Your task to perform on an android device: Show me the alarms in the clock app Image 0: 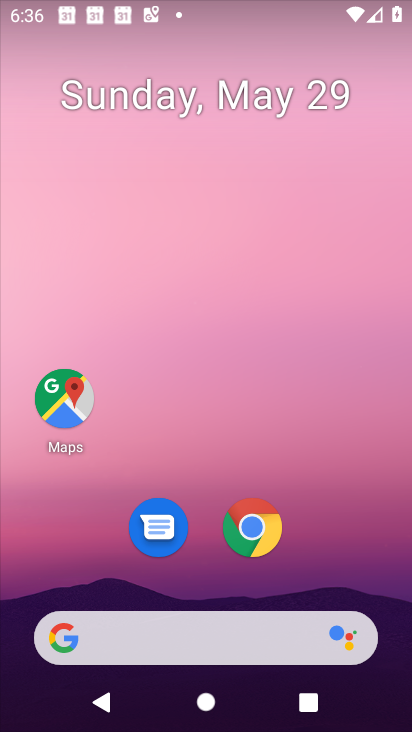
Step 0: drag from (373, 638) to (276, 98)
Your task to perform on an android device: Show me the alarms in the clock app Image 1: 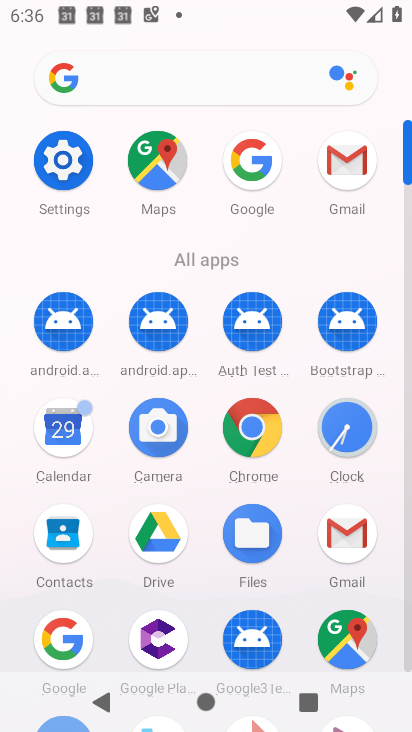
Step 1: click (353, 426)
Your task to perform on an android device: Show me the alarms in the clock app Image 2: 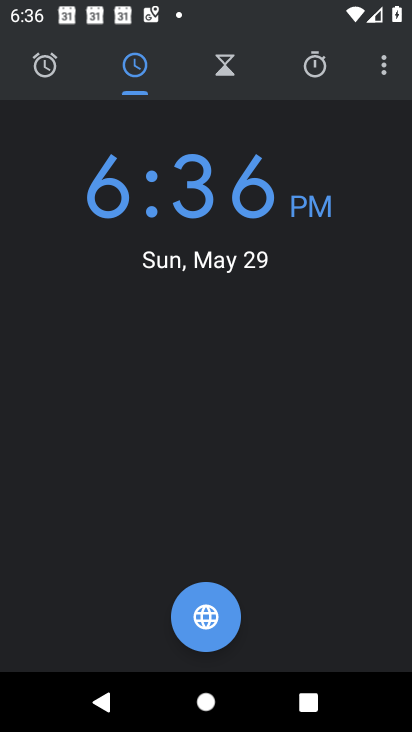
Step 2: click (53, 57)
Your task to perform on an android device: Show me the alarms in the clock app Image 3: 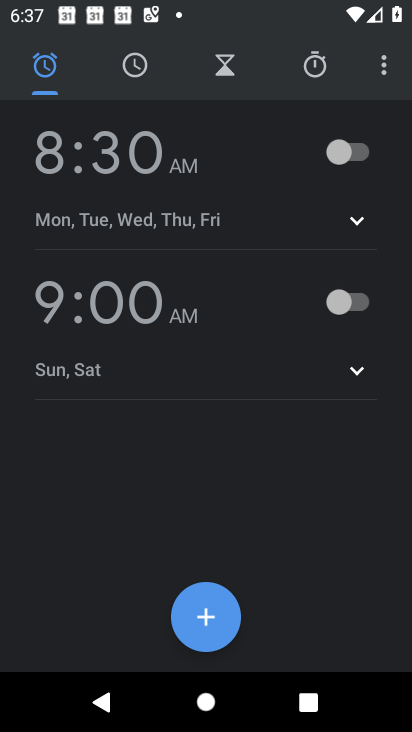
Step 3: task complete